Your task to perform on an android device: refresh tabs in the chrome app Image 0: 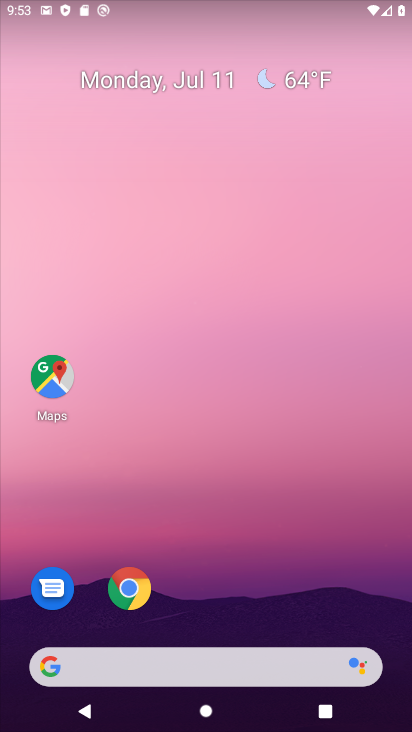
Step 0: drag from (231, 665) to (316, 137)
Your task to perform on an android device: refresh tabs in the chrome app Image 1: 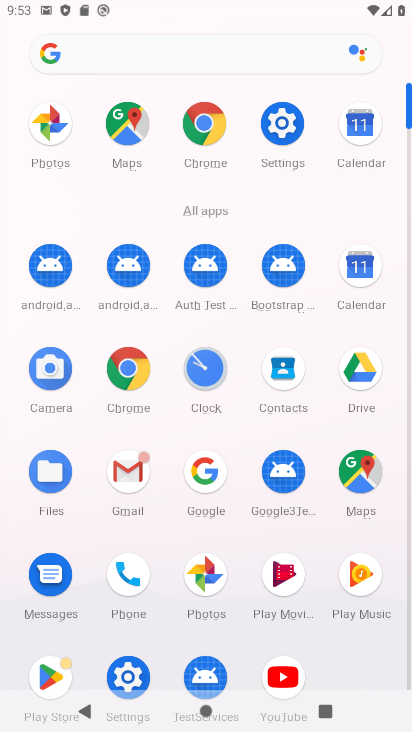
Step 1: click (131, 385)
Your task to perform on an android device: refresh tabs in the chrome app Image 2: 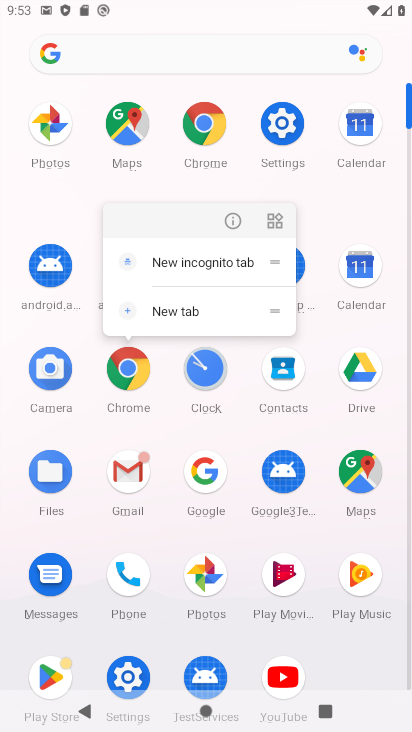
Step 2: click (125, 370)
Your task to perform on an android device: refresh tabs in the chrome app Image 3: 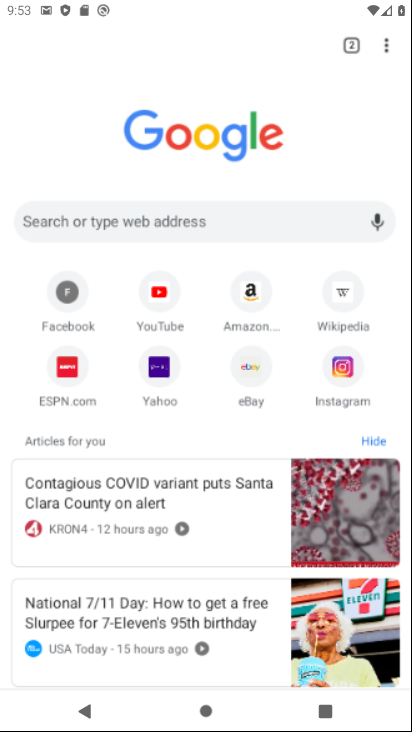
Step 3: click (383, 40)
Your task to perform on an android device: refresh tabs in the chrome app Image 4: 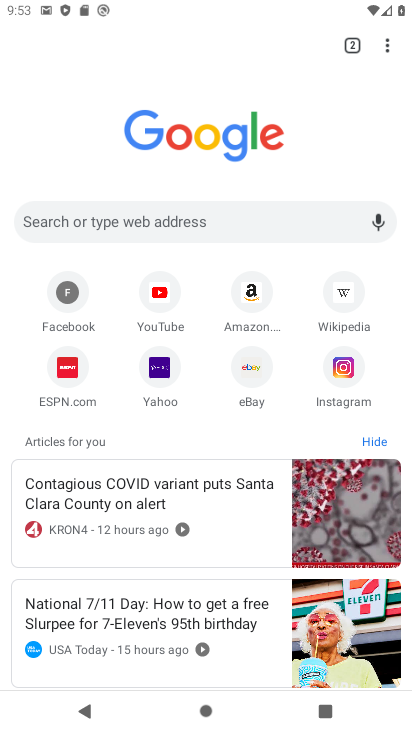
Step 4: click (383, 40)
Your task to perform on an android device: refresh tabs in the chrome app Image 5: 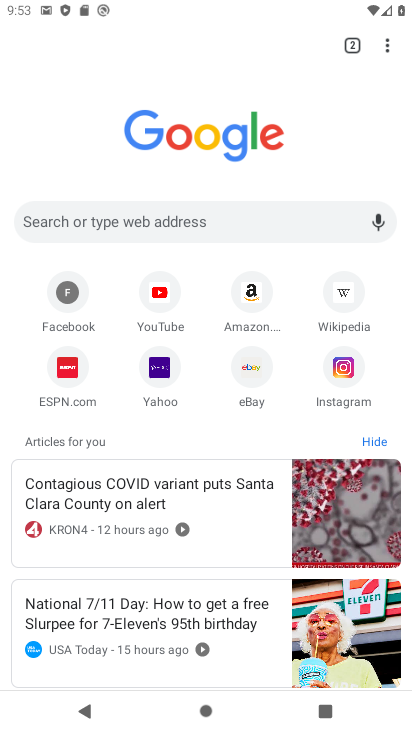
Step 5: task complete